Your task to perform on an android device: see sites visited before in the chrome app Image 0: 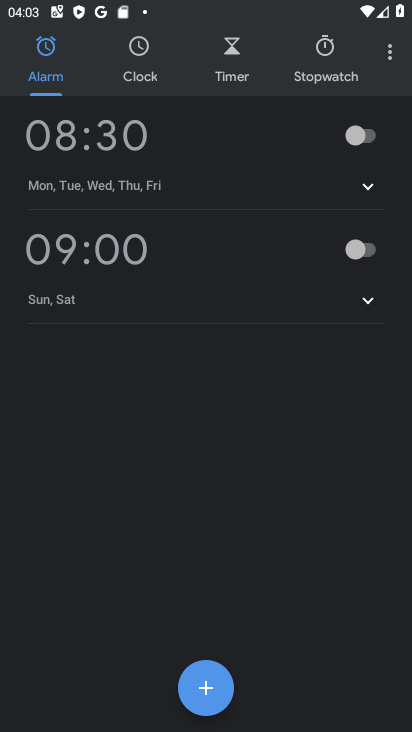
Step 0: press home button
Your task to perform on an android device: see sites visited before in the chrome app Image 1: 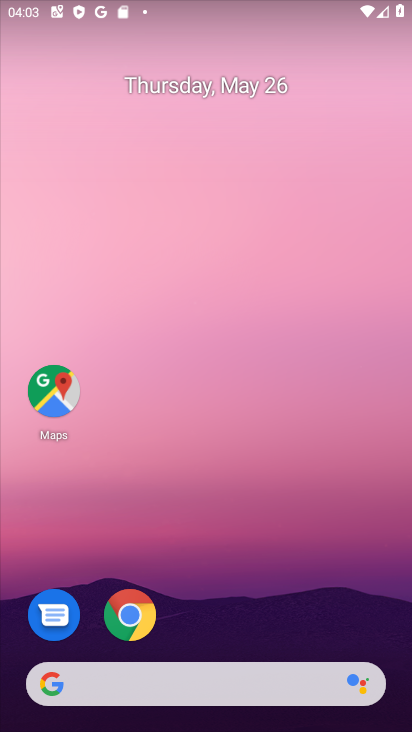
Step 1: click (132, 623)
Your task to perform on an android device: see sites visited before in the chrome app Image 2: 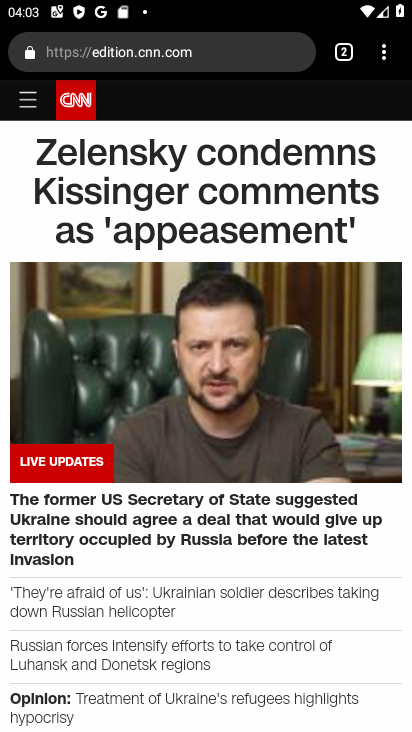
Step 2: click (389, 59)
Your task to perform on an android device: see sites visited before in the chrome app Image 3: 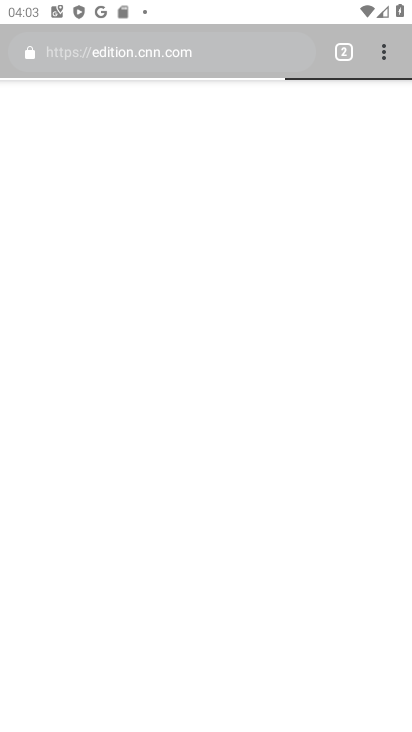
Step 3: click (385, 52)
Your task to perform on an android device: see sites visited before in the chrome app Image 4: 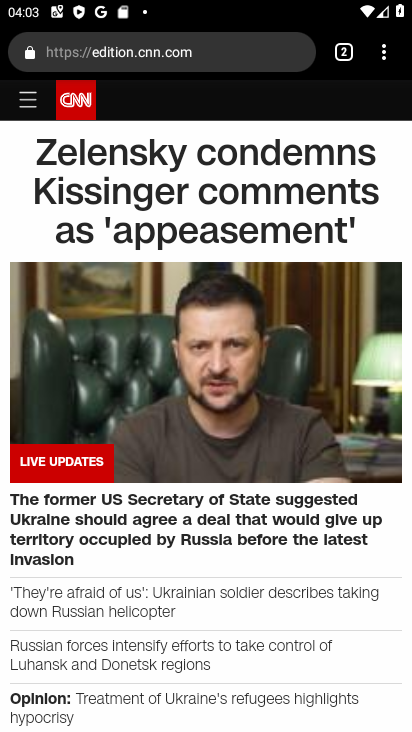
Step 4: click (385, 59)
Your task to perform on an android device: see sites visited before in the chrome app Image 5: 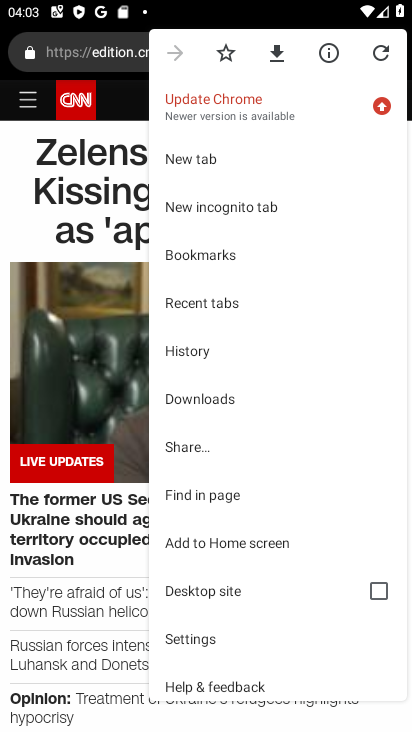
Step 5: click (206, 356)
Your task to perform on an android device: see sites visited before in the chrome app Image 6: 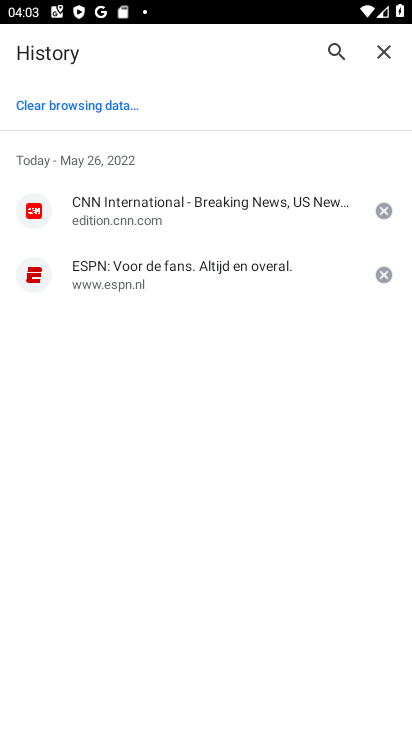
Step 6: task complete